Your task to perform on an android device: turn off improve location accuracy Image 0: 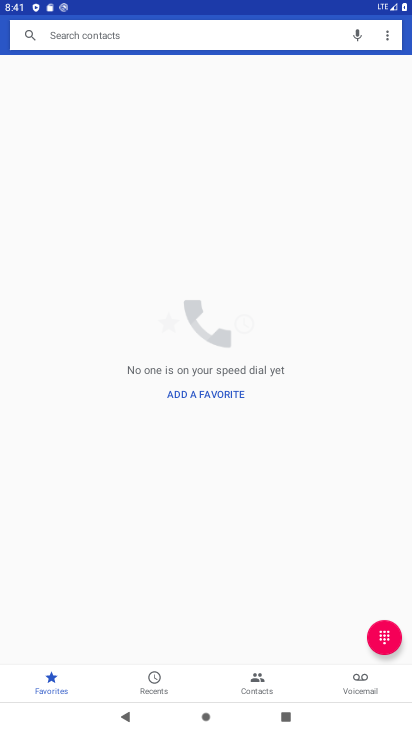
Step 0: press home button
Your task to perform on an android device: turn off improve location accuracy Image 1: 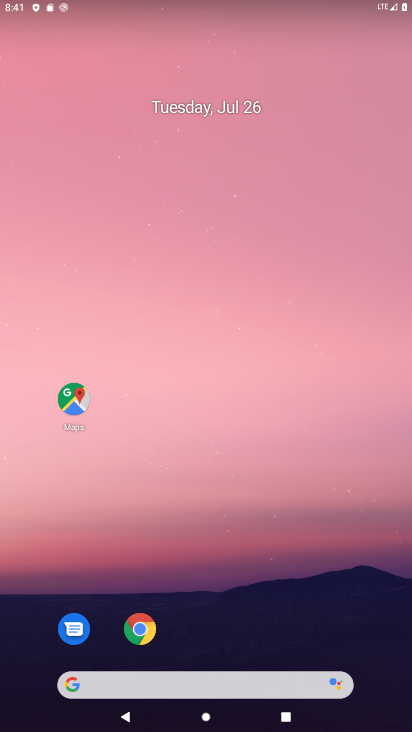
Step 1: drag from (224, 655) to (219, 107)
Your task to perform on an android device: turn off improve location accuracy Image 2: 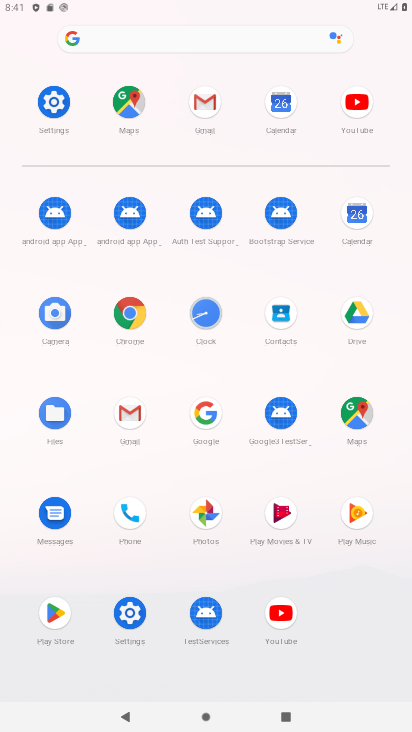
Step 2: click (136, 614)
Your task to perform on an android device: turn off improve location accuracy Image 3: 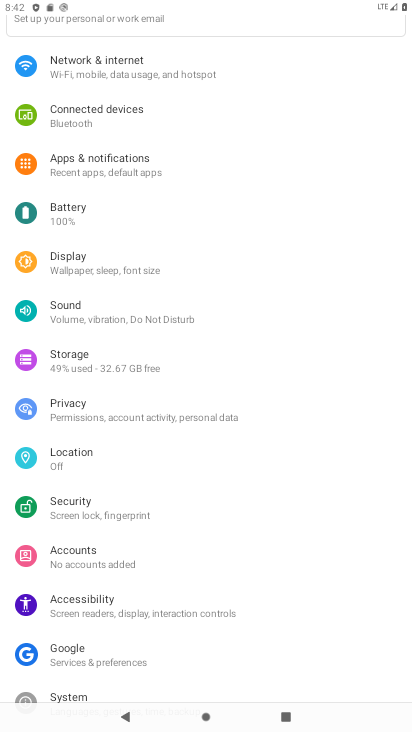
Step 3: click (85, 465)
Your task to perform on an android device: turn off improve location accuracy Image 4: 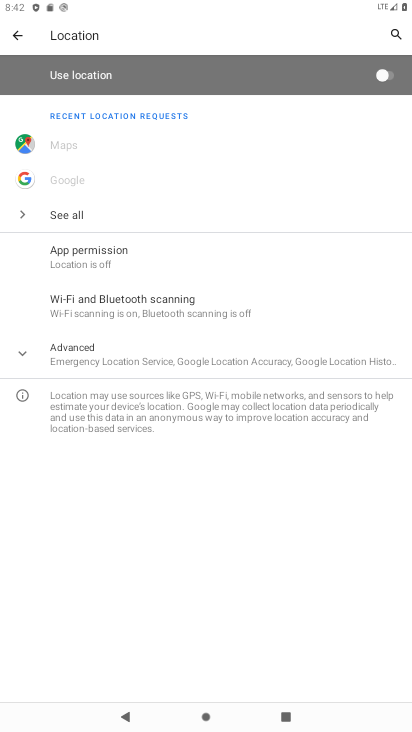
Step 4: click (84, 354)
Your task to perform on an android device: turn off improve location accuracy Image 5: 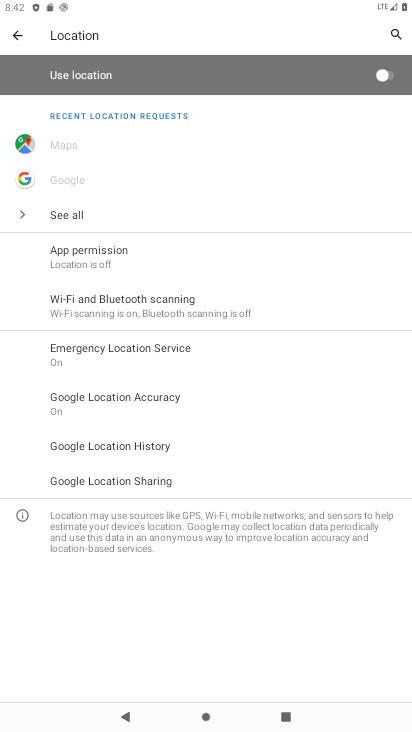
Step 5: click (124, 396)
Your task to perform on an android device: turn off improve location accuracy Image 6: 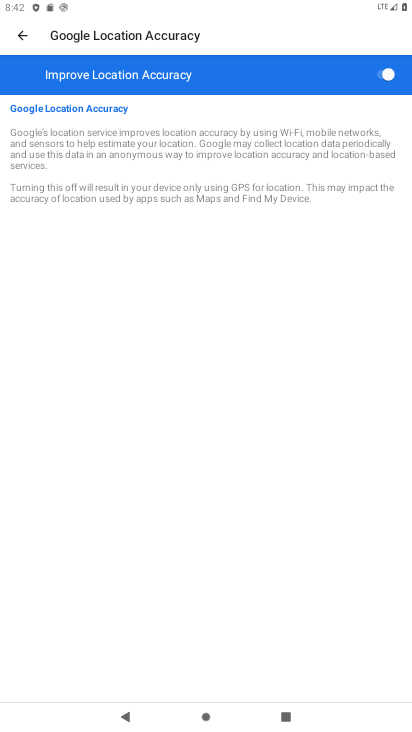
Step 6: click (379, 77)
Your task to perform on an android device: turn off improve location accuracy Image 7: 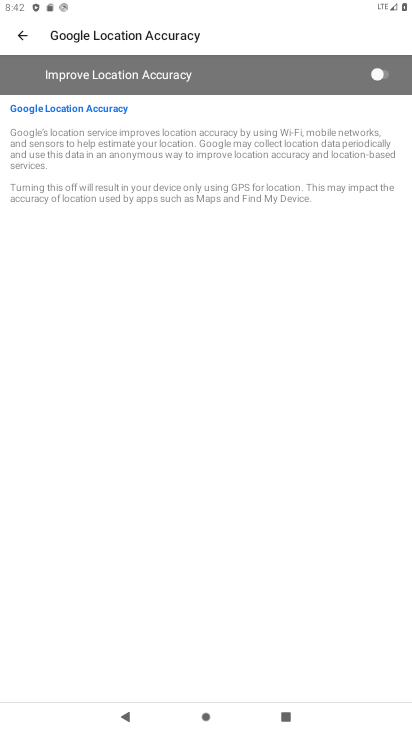
Step 7: task complete